Your task to perform on an android device: Turn off the flashlight Image 0: 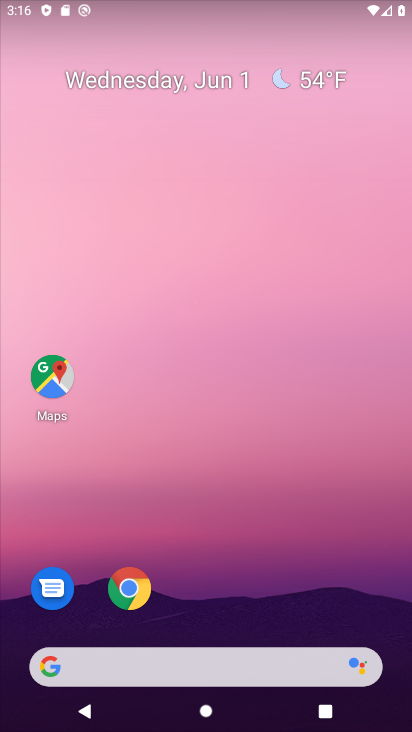
Step 0: drag from (227, 579) to (245, 161)
Your task to perform on an android device: Turn off the flashlight Image 1: 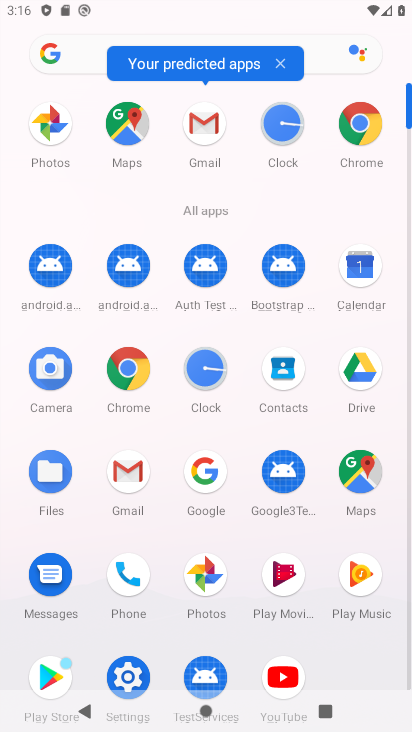
Step 1: click (132, 669)
Your task to perform on an android device: Turn off the flashlight Image 2: 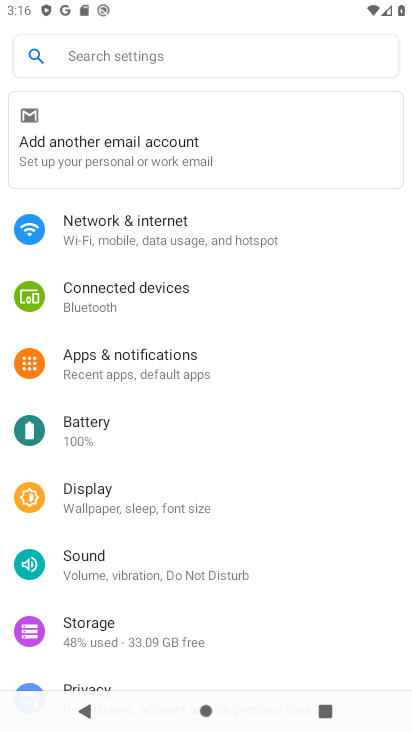
Step 2: click (211, 58)
Your task to perform on an android device: Turn off the flashlight Image 3: 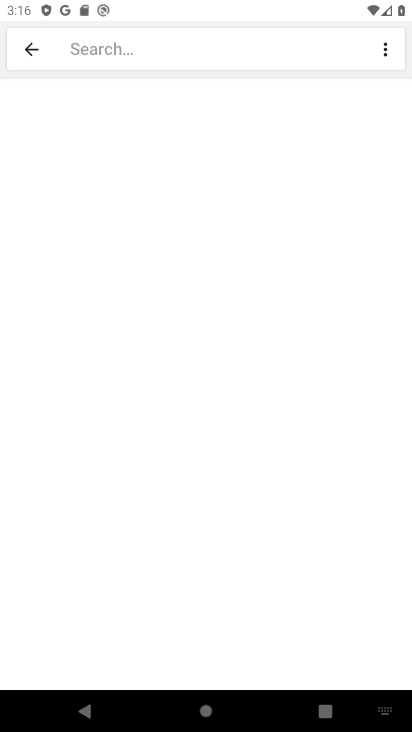
Step 3: type "flashlight"
Your task to perform on an android device: Turn off the flashlight Image 4: 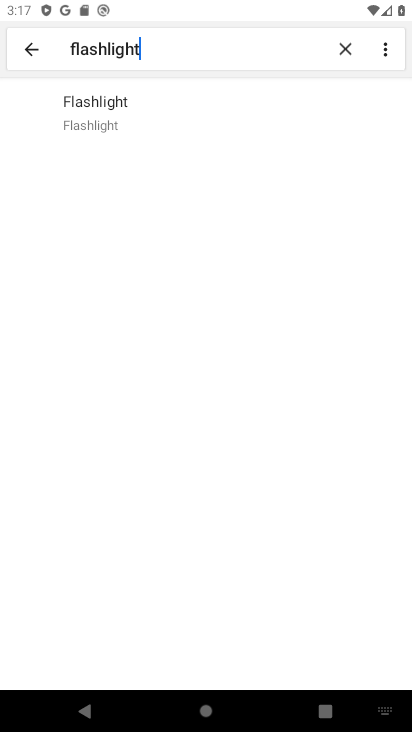
Step 4: click (148, 107)
Your task to perform on an android device: Turn off the flashlight Image 5: 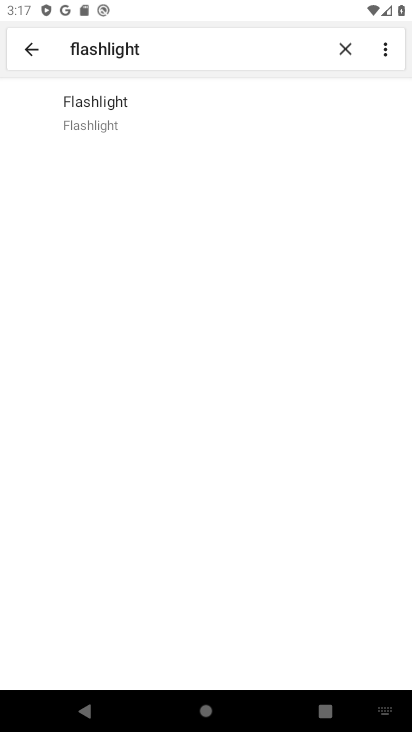
Step 5: click (125, 101)
Your task to perform on an android device: Turn off the flashlight Image 6: 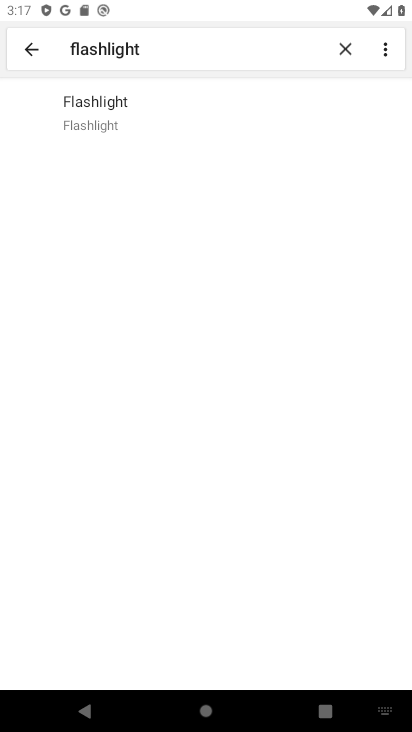
Step 6: task complete